Your task to perform on an android device: Open calendar and show me the second week of next month Image 0: 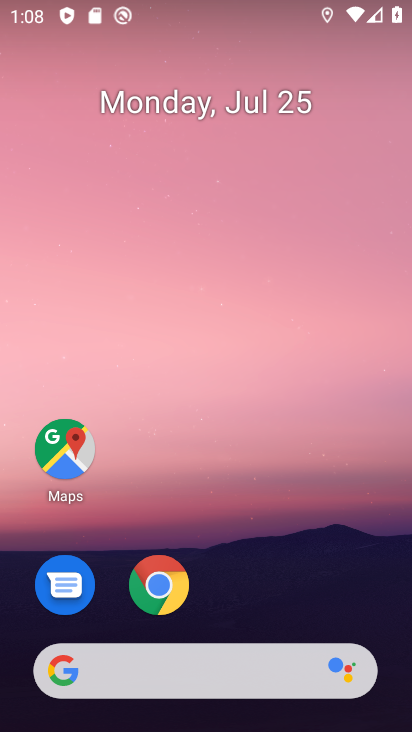
Step 0: drag from (260, 648) to (275, 203)
Your task to perform on an android device: Open calendar and show me the second week of next month Image 1: 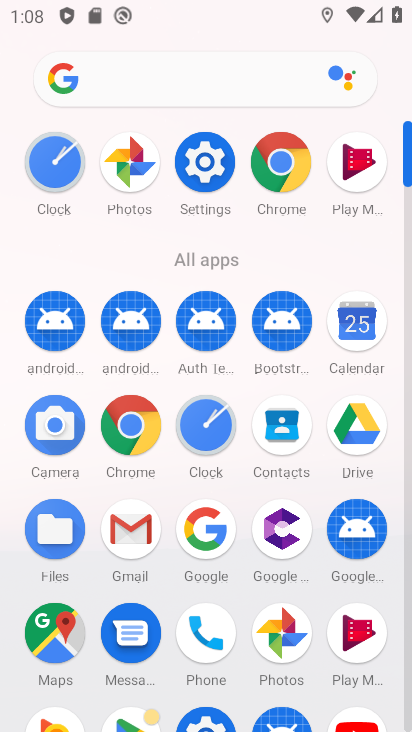
Step 1: click (372, 345)
Your task to perform on an android device: Open calendar and show me the second week of next month Image 2: 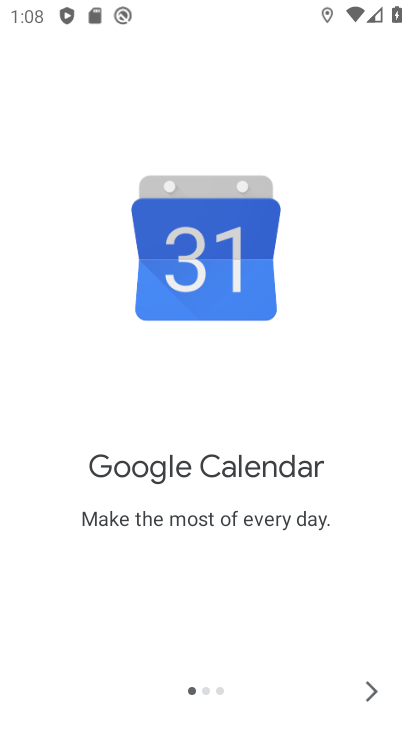
Step 2: click (370, 678)
Your task to perform on an android device: Open calendar and show me the second week of next month Image 3: 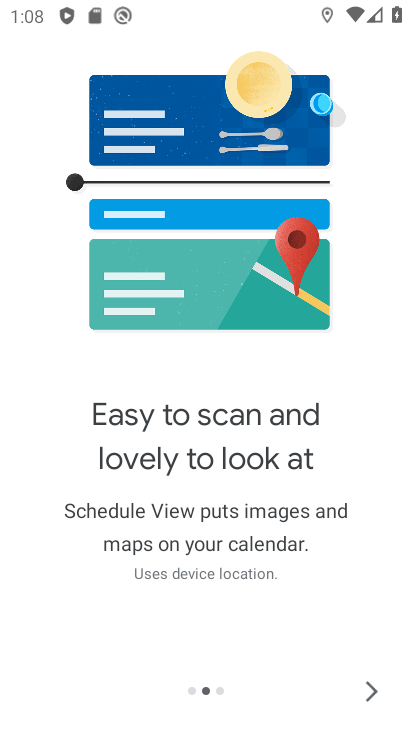
Step 3: click (370, 678)
Your task to perform on an android device: Open calendar and show me the second week of next month Image 4: 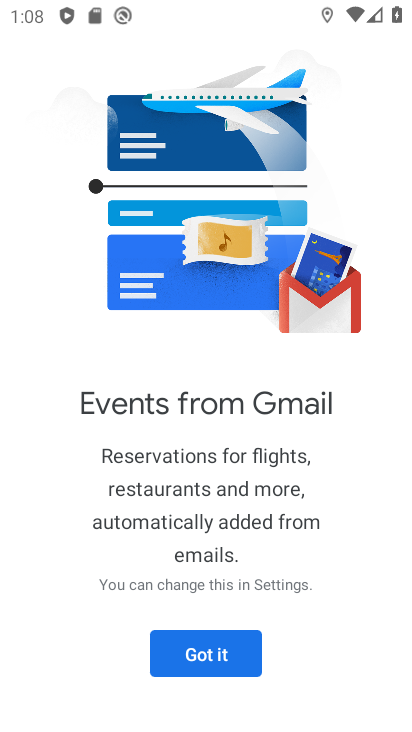
Step 4: click (227, 666)
Your task to perform on an android device: Open calendar and show me the second week of next month Image 5: 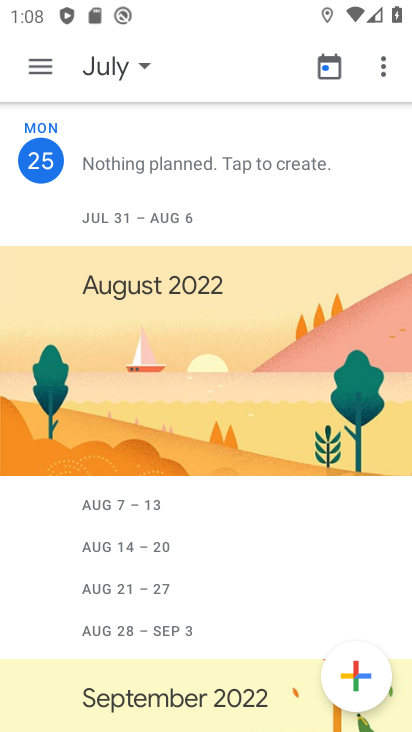
Step 5: click (53, 61)
Your task to perform on an android device: Open calendar and show me the second week of next month Image 6: 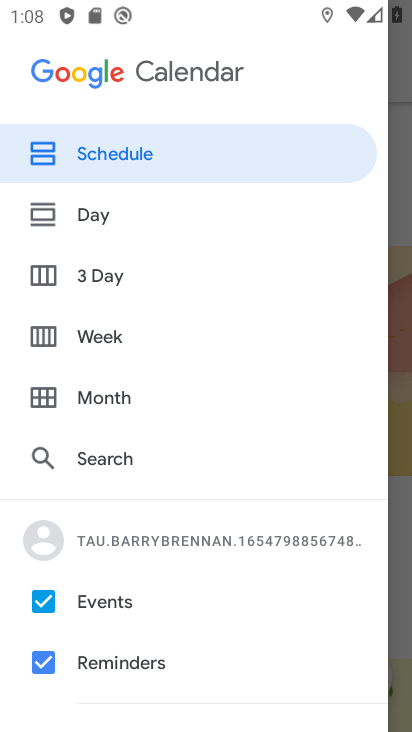
Step 6: click (102, 407)
Your task to perform on an android device: Open calendar and show me the second week of next month Image 7: 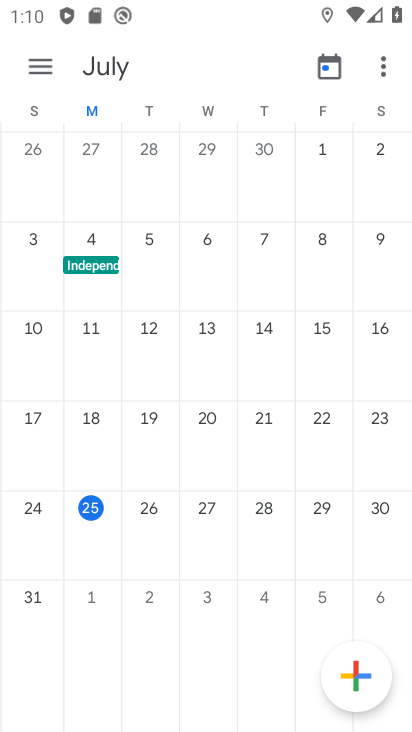
Step 7: task complete